Your task to perform on an android device: Go to sound settings Image 0: 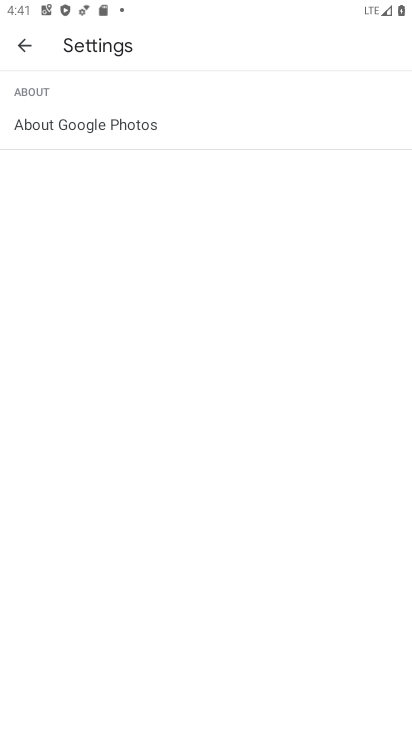
Step 0: press home button
Your task to perform on an android device: Go to sound settings Image 1: 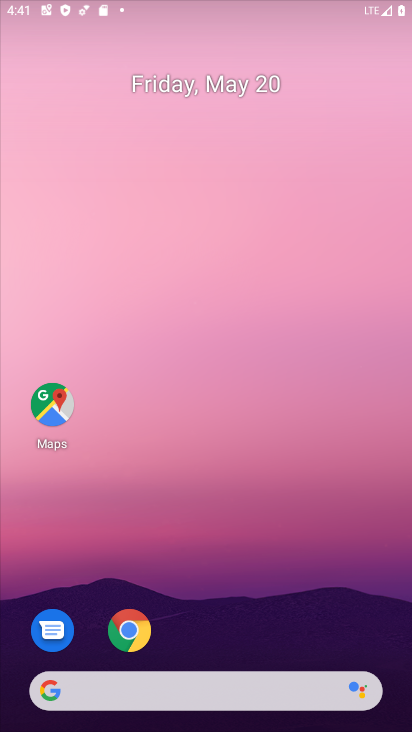
Step 1: drag from (215, 529) to (281, 74)
Your task to perform on an android device: Go to sound settings Image 2: 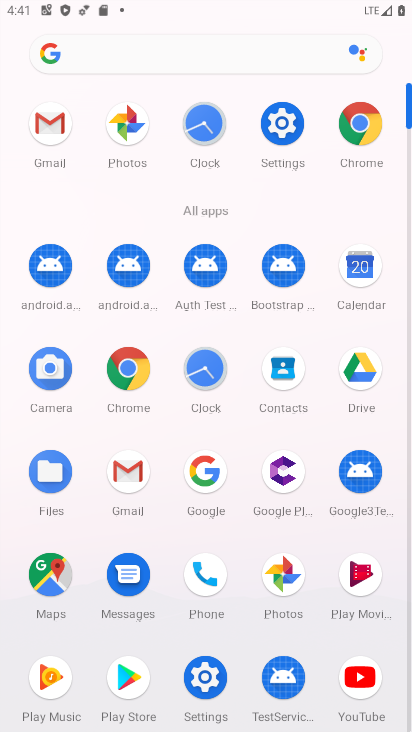
Step 2: click (278, 130)
Your task to perform on an android device: Go to sound settings Image 3: 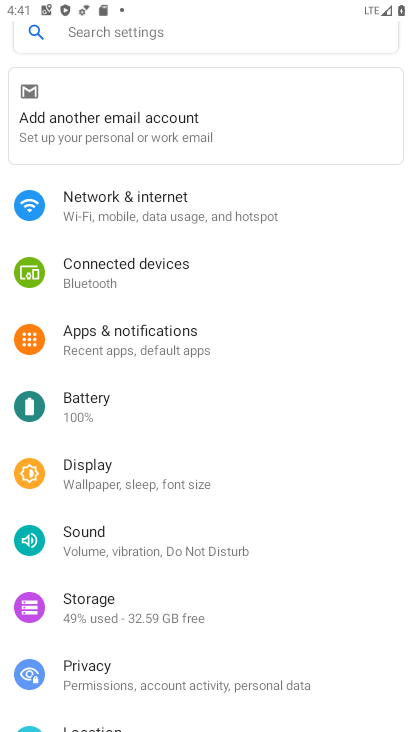
Step 3: click (142, 543)
Your task to perform on an android device: Go to sound settings Image 4: 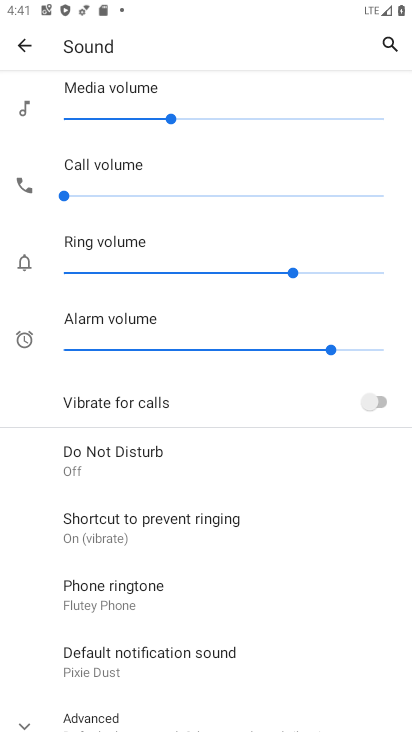
Step 4: task complete